Your task to perform on an android device: make emails show in primary in the gmail app Image 0: 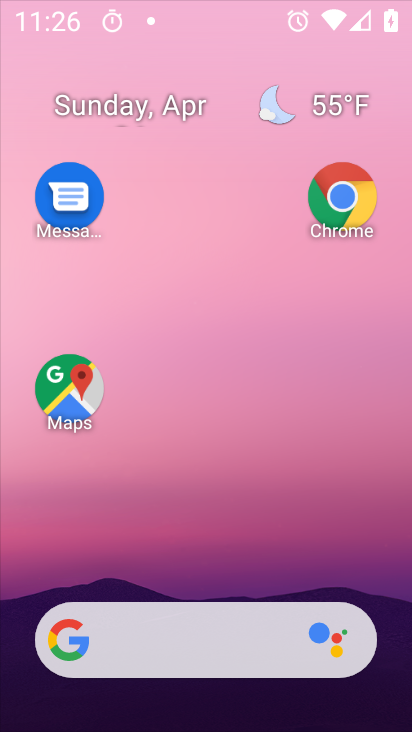
Step 0: drag from (211, 585) to (198, 9)
Your task to perform on an android device: make emails show in primary in the gmail app Image 1: 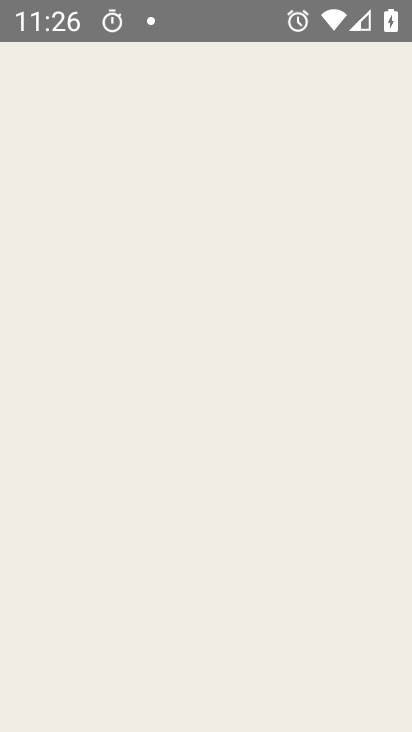
Step 1: press home button
Your task to perform on an android device: make emails show in primary in the gmail app Image 2: 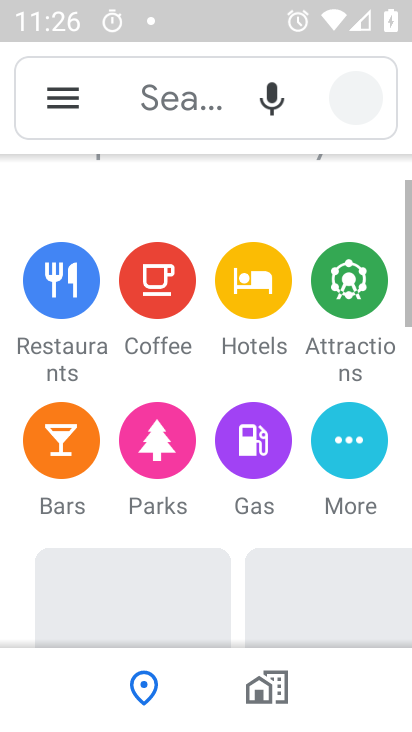
Step 2: drag from (198, 9) to (43, 346)
Your task to perform on an android device: make emails show in primary in the gmail app Image 3: 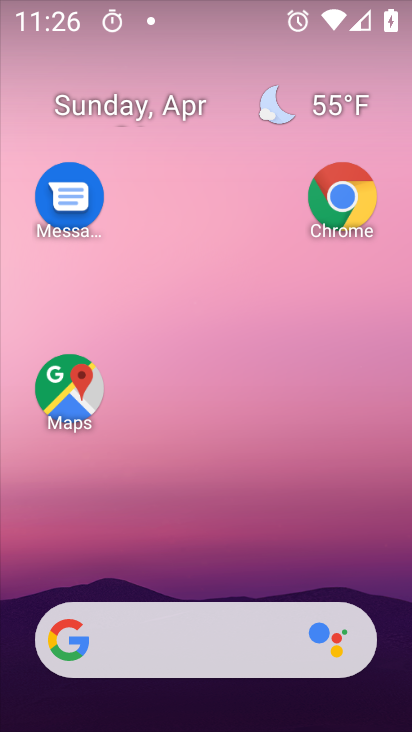
Step 3: drag from (212, 585) to (168, 2)
Your task to perform on an android device: make emails show in primary in the gmail app Image 4: 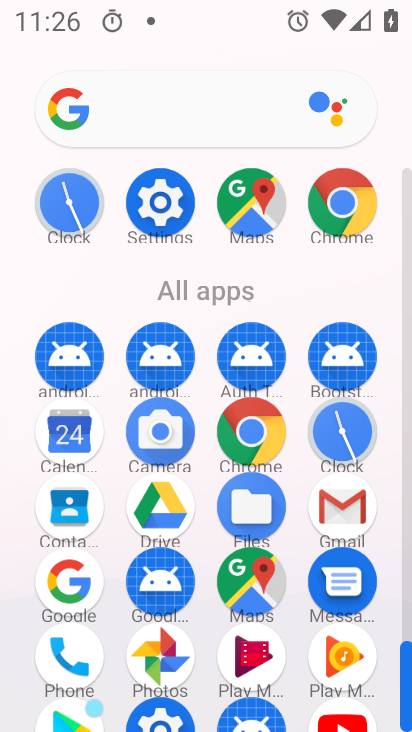
Step 4: click (332, 505)
Your task to perform on an android device: make emails show in primary in the gmail app Image 5: 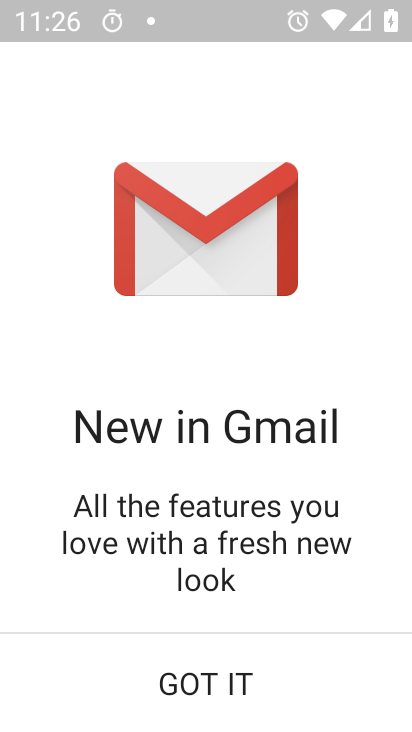
Step 5: click (256, 697)
Your task to perform on an android device: make emails show in primary in the gmail app Image 6: 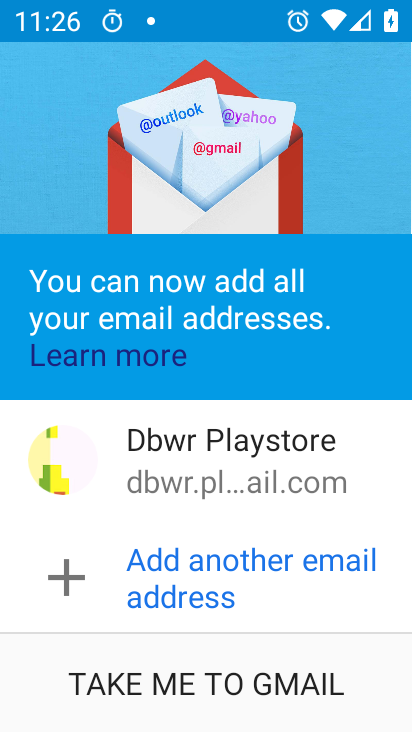
Step 6: click (172, 673)
Your task to perform on an android device: make emails show in primary in the gmail app Image 7: 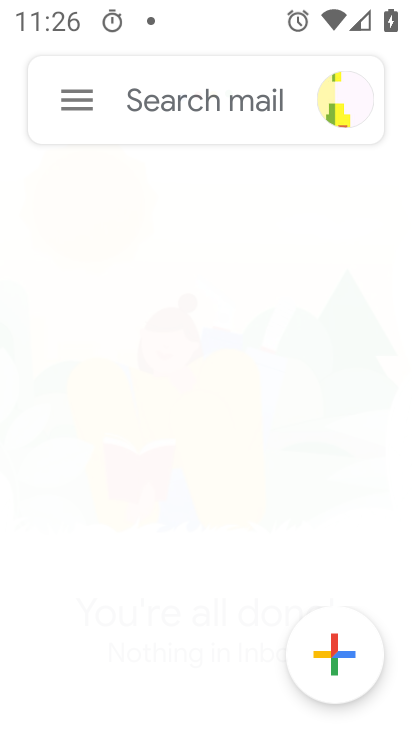
Step 7: click (66, 107)
Your task to perform on an android device: make emails show in primary in the gmail app Image 8: 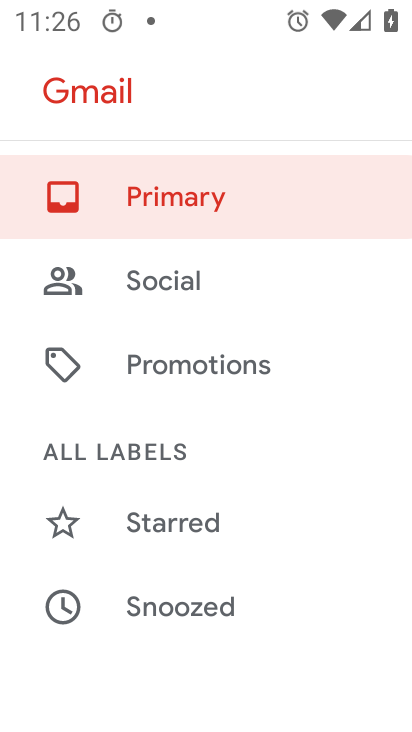
Step 8: click (137, 177)
Your task to perform on an android device: make emails show in primary in the gmail app Image 9: 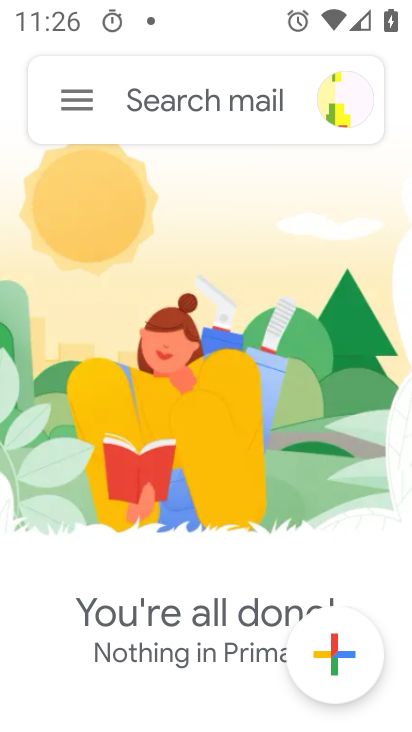
Step 9: task complete